Your task to perform on an android device: Go to privacy settings Image 0: 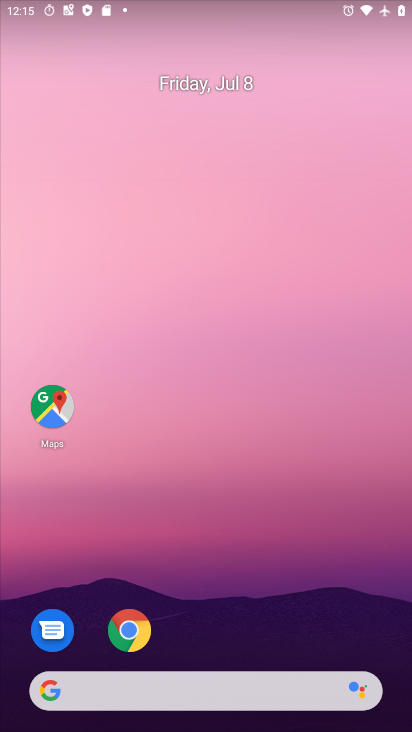
Step 0: drag from (209, 632) to (220, 103)
Your task to perform on an android device: Go to privacy settings Image 1: 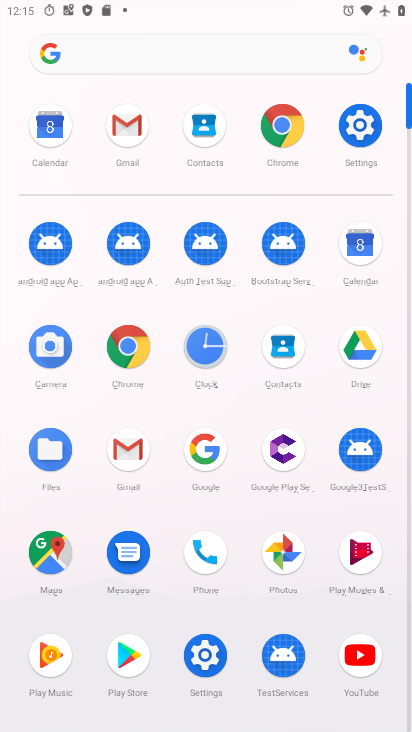
Step 1: click (352, 138)
Your task to perform on an android device: Go to privacy settings Image 2: 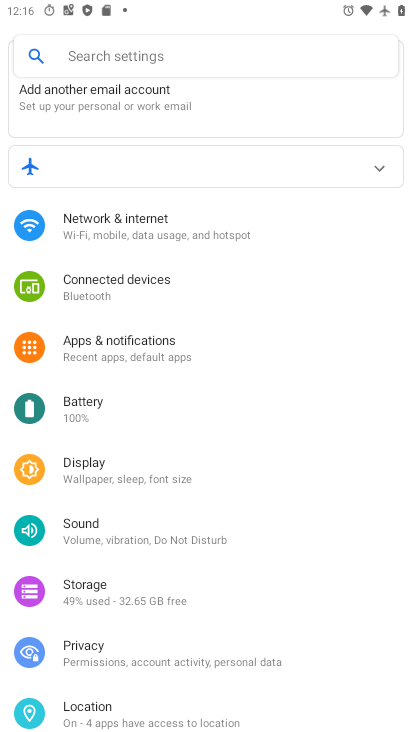
Step 2: click (159, 651)
Your task to perform on an android device: Go to privacy settings Image 3: 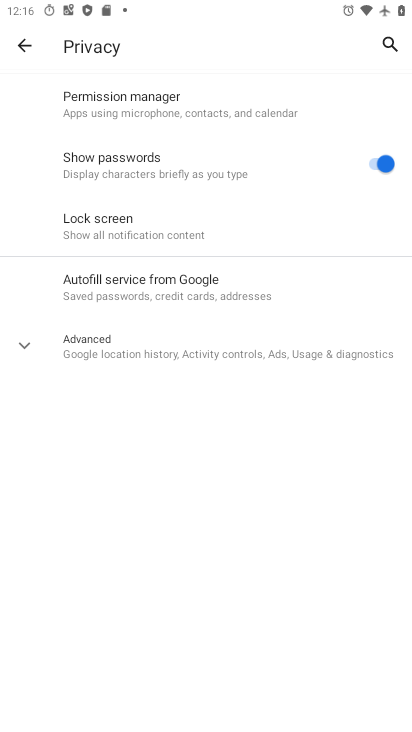
Step 3: task complete